Your task to perform on an android device: Search for vegetarian restaurants on Maps Image 0: 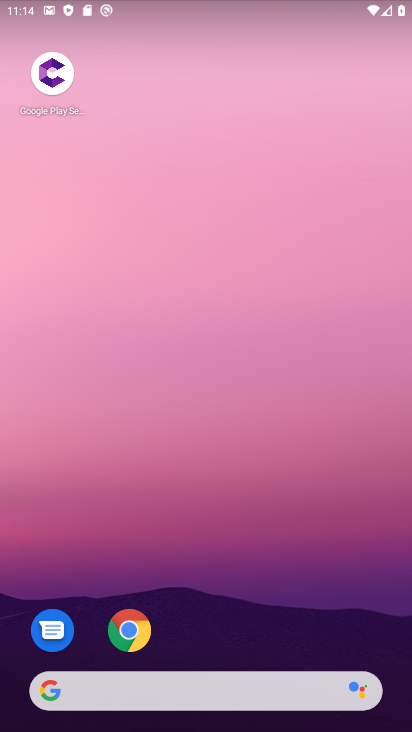
Step 0: drag from (209, 564) to (121, 74)
Your task to perform on an android device: Search for vegetarian restaurants on Maps Image 1: 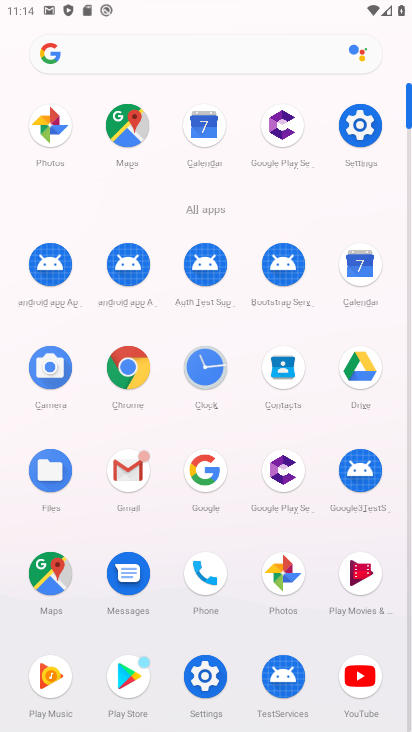
Step 1: click (121, 135)
Your task to perform on an android device: Search for vegetarian restaurants on Maps Image 2: 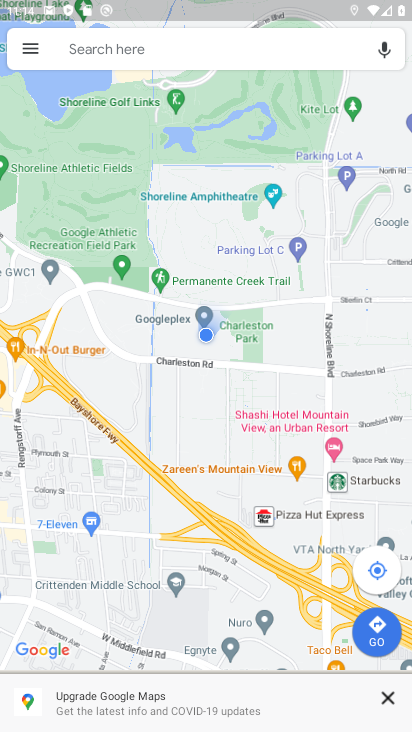
Step 2: click (157, 40)
Your task to perform on an android device: Search for vegetarian restaurants on Maps Image 3: 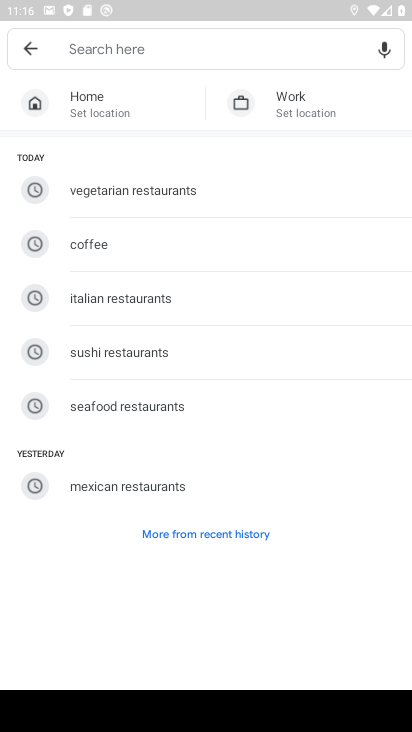
Step 3: type "egetarian restaurants"
Your task to perform on an android device: Search for vegetarian restaurants on Maps Image 4: 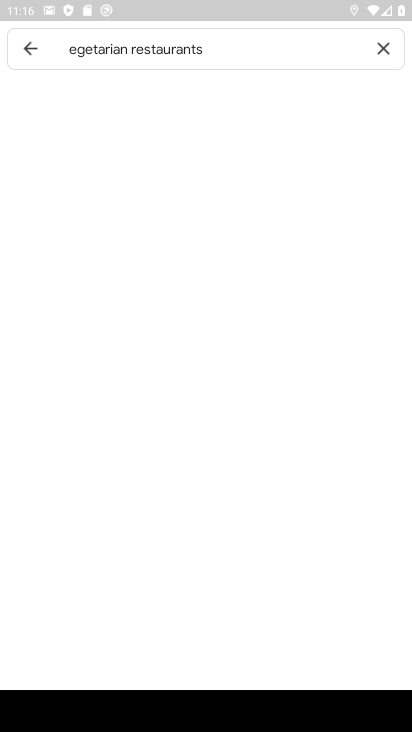
Step 4: click (214, 142)
Your task to perform on an android device: Search for vegetarian restaurants on Maps Image 5: 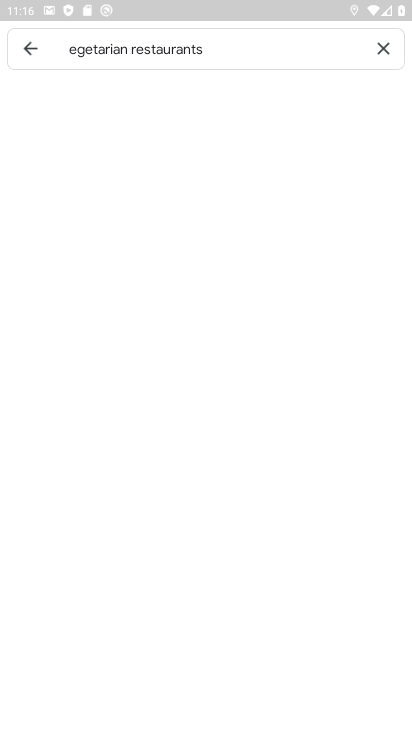
Step 5: click (379, 54)
Your task to perform on an android device: Search for vegetarian restaurants on Maps Image 6: 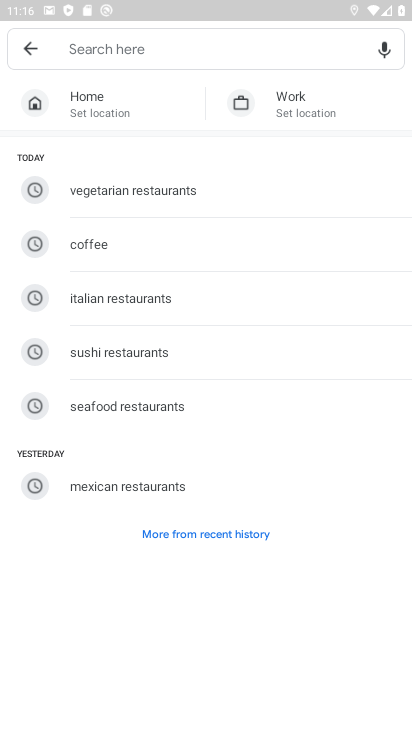
Step 6: click (158, 191)
Your task to perform on an android device: Search for vegetarian restaurants on Maps Image 7: 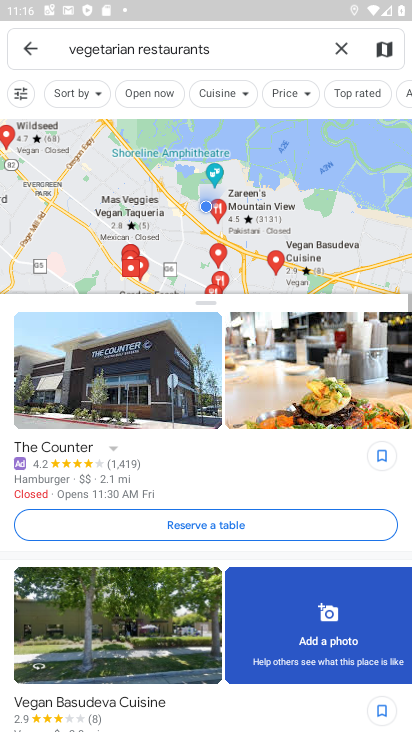
Step 7: task complete